Your task to perform on an android device: Go to location settings Image 0: 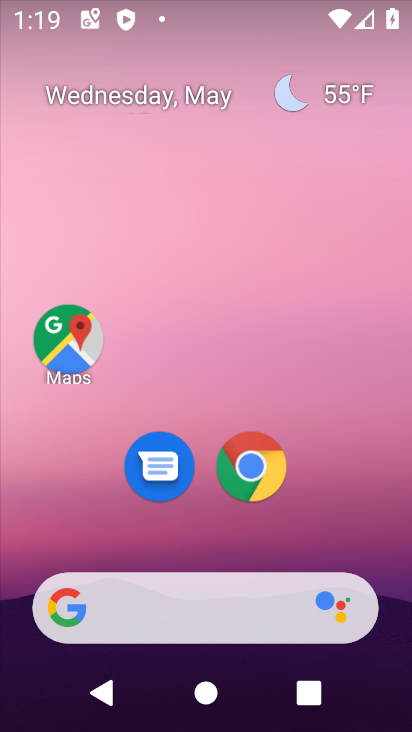
Step 0: drag from (228, 556) to (266, 34)
Your task to perform on an android device: Go to location settings Image 1: 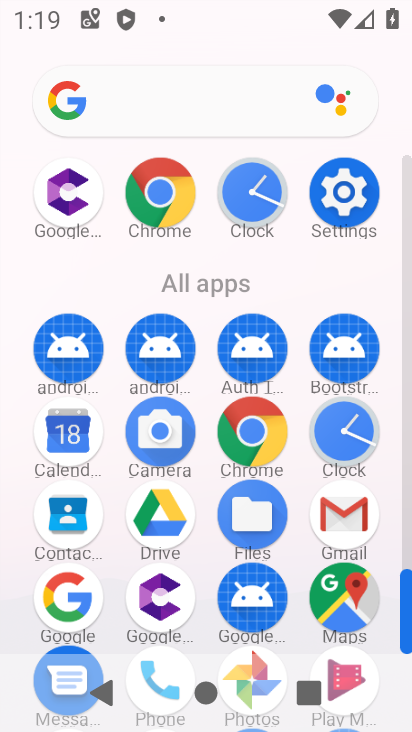
Step 1: click (328, 188)
Your task to perform on an android device: Go to location settings Image 2: 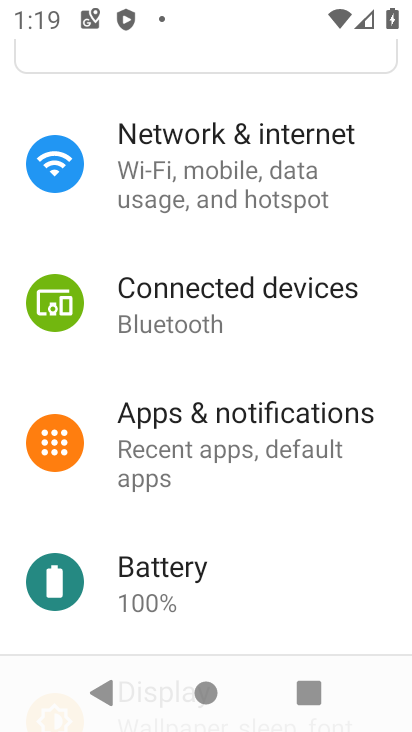
Step 2: drag from (201, 521) to (221, 184)
Your task to perform on an android device: Go to location settings Image 3: 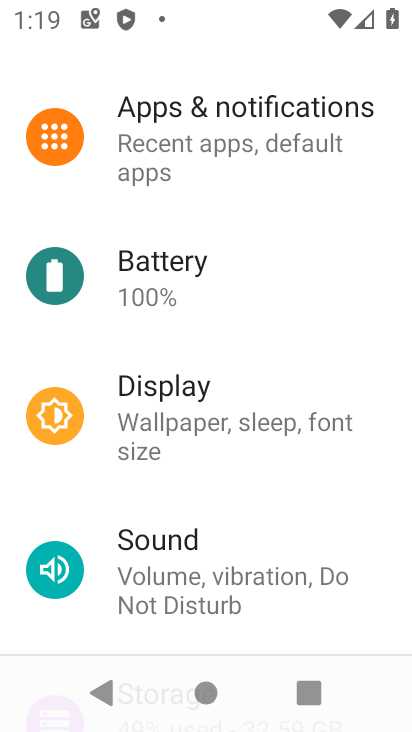
Step 3: drag from (195, 585) to (220, 256)
Your task to perform on an android device: Go to location settings Image 4: 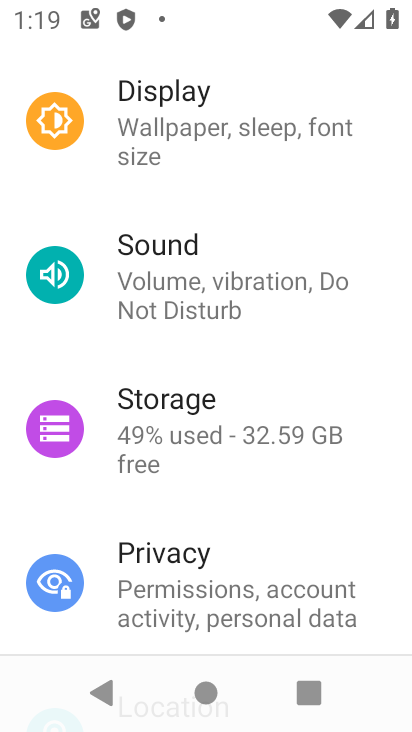
Step 4: drag from (215, 592) to (264, 306)
Your task to perform on an android device: Go to location settings Image 5: 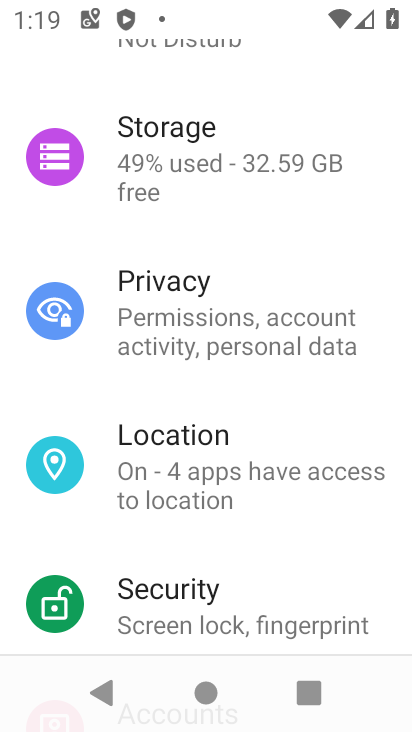
Step 5: click (156, 476)
Your task to perform on an android device: Go to location settings Image 6: 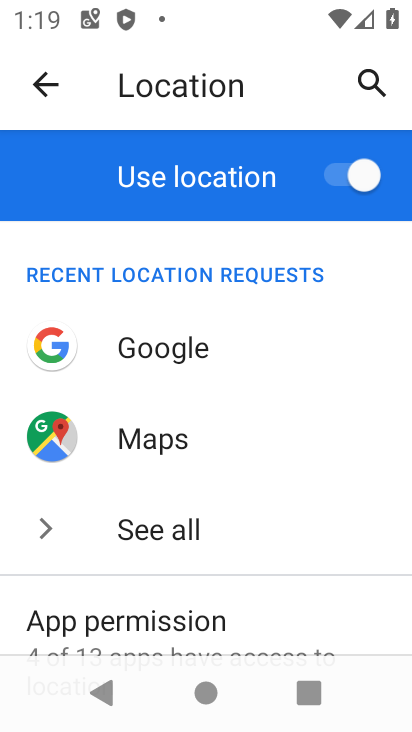
Step 6: task complete